Your task to perform on an android device: Open the stopwatch Image 0: 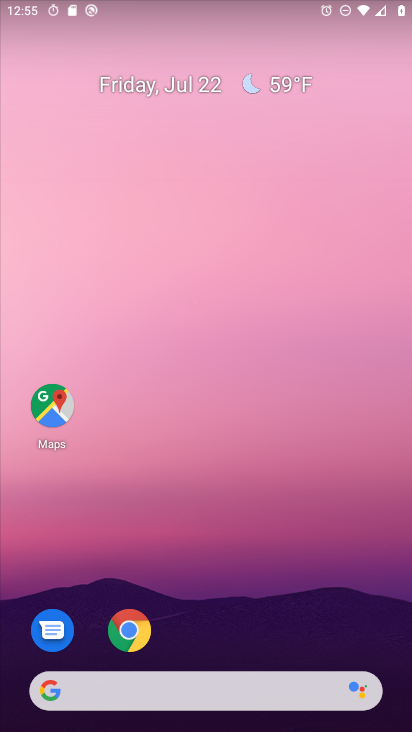
Step 0: drag from (221, 641) to (347, 36)
Your task to perform on an android device: Open the stopwatch Image 1: 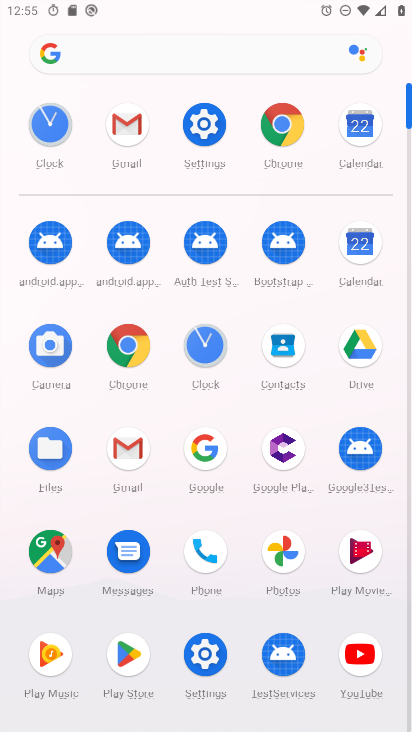
Step 1: click (199, 362)
Your task to perform on an android device: Open the stopwatch Image 2: 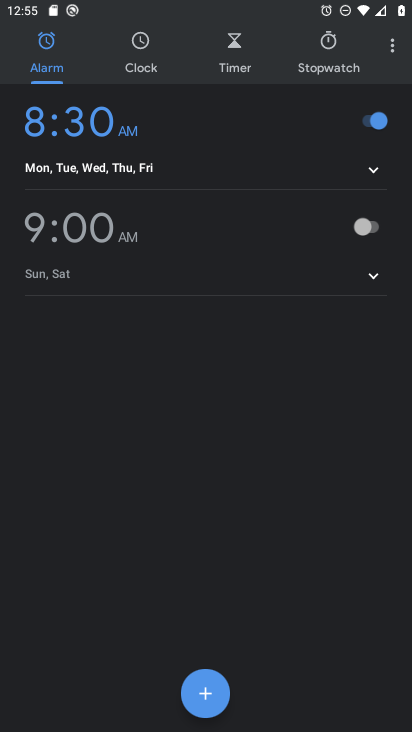
Step 2: click (324, 40)
Your task to perform on an android device: Open the stopwatch Image 3: 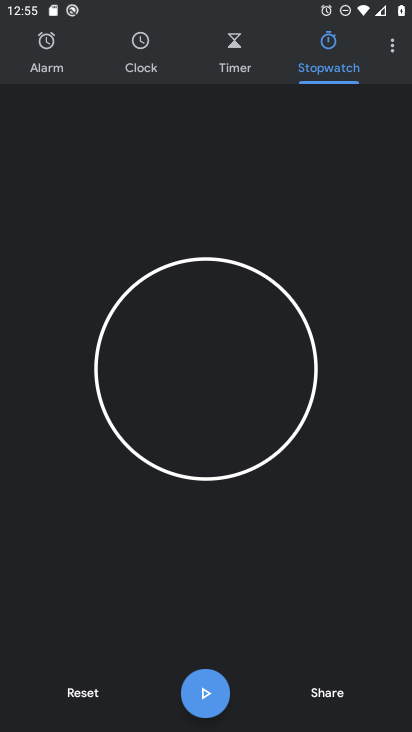
Step 3: task complete